Your task to perform on an android device: make emails show in primary in the gmail app Image 0: 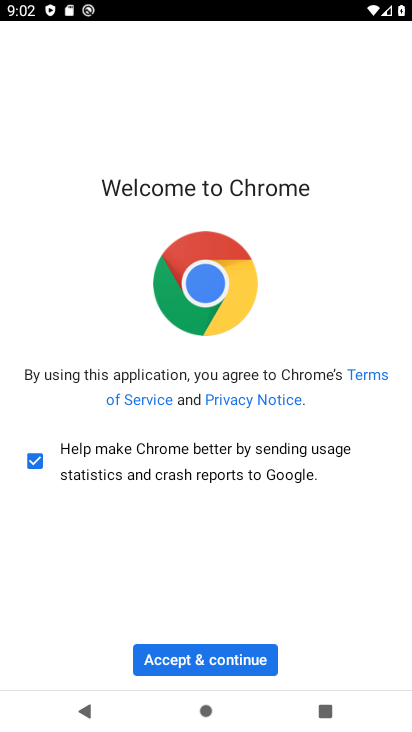
Step 0: press home button
Your task to perform on an android device: make emails show in primary in the gmail app Image 1: 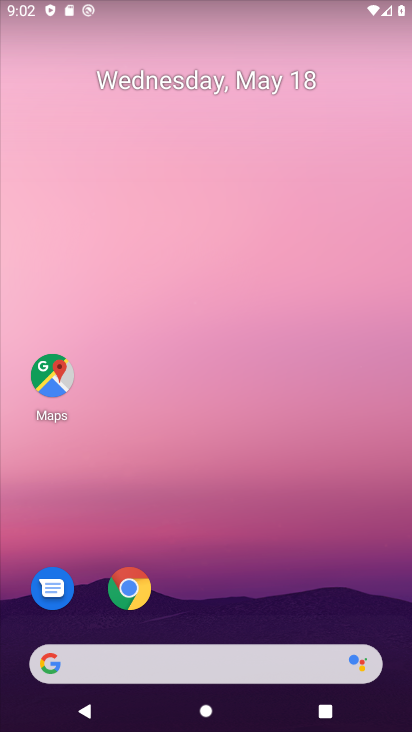
Step 1: drag from (236, 674) to (351, 133)
Your task to perform on an android device: make emails show in primary in the gmail app Image 2: 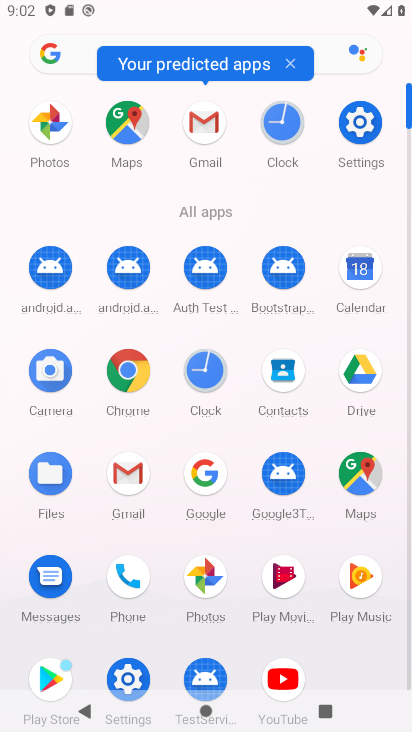
Step 2: click (146, 485)
Your task to perform on an android device: make emails show in primary in the gmail app Image 3: 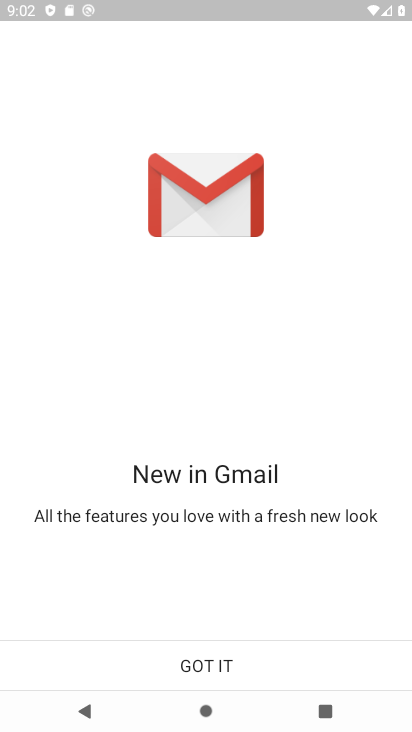
Step 3: click (183, 662)
Your task to perform on an android device: make emails show in primary in the gmail app Image 4: 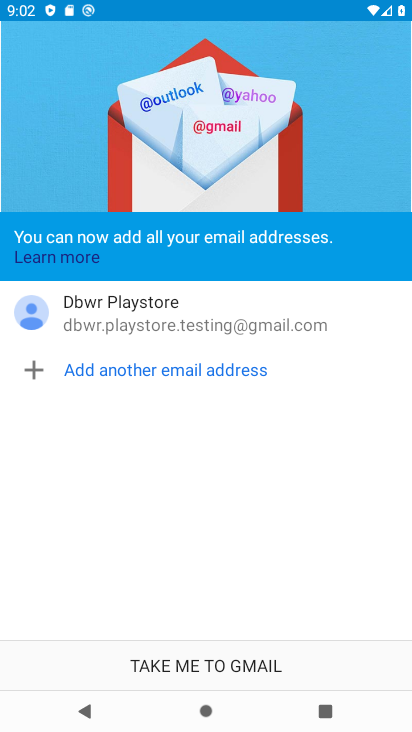
Step 4: click (208, 672)
Your task to perform on an android device: make emails show in primary in the gmail app Image 5: 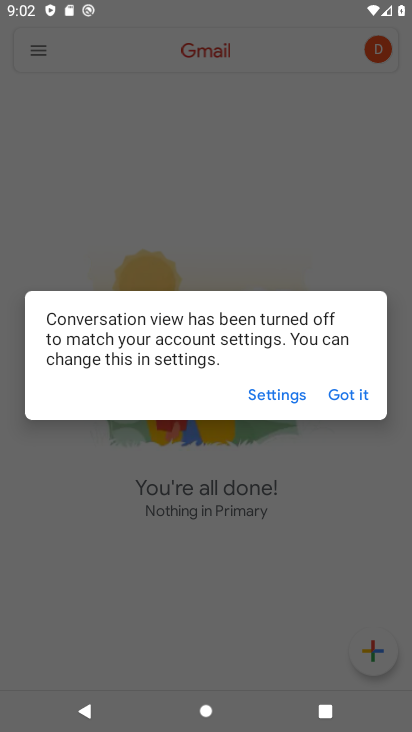
Step 5: click (359, 393)
Your task to perform on an android device: make emails show in primary in the gmail app Image 6: 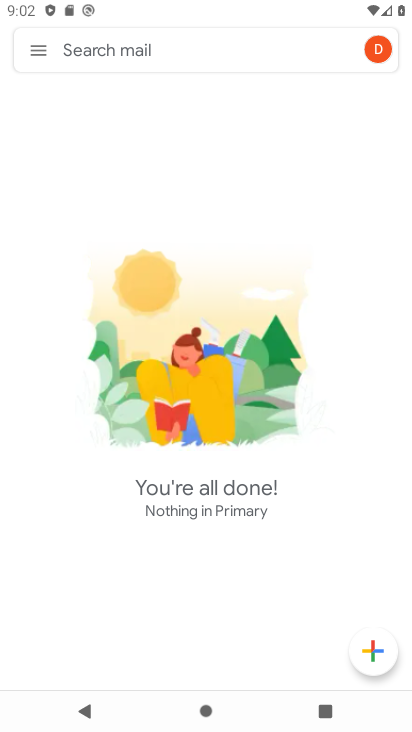
Step 6: click (40, 55)
Your task to perform on an android device: make emails show in primary in the gmail app Image 7: 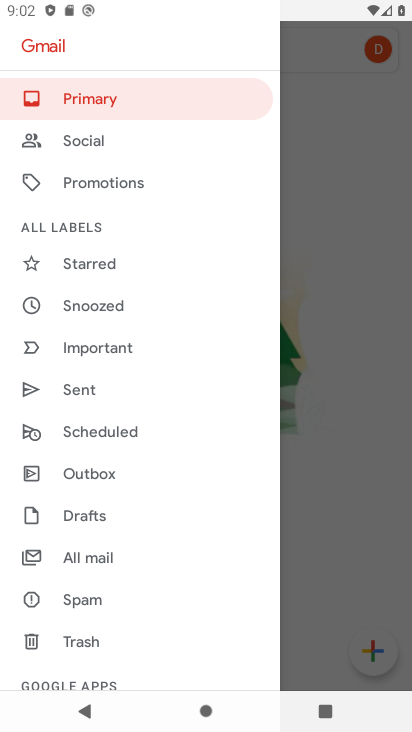
Step 7: drag from (84, 598) to (194, 459)
Your task to perform on an android device: make emails show in primary in the gmail app Image 8: 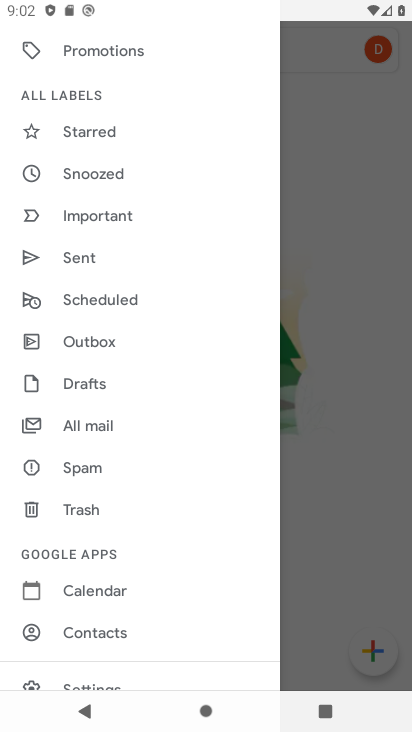
Step 8: click (87, 677)
Your task to perform on an android device: make emails show in primary in the gmail app Image 9: 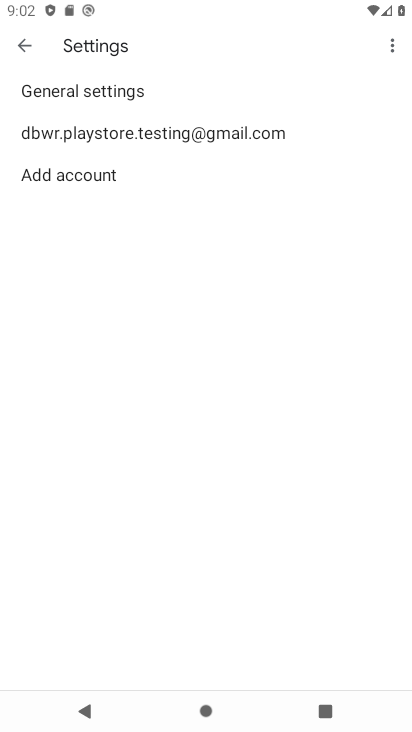
Step 9: click (144, 132)
Your task to perform on an android device: make emails show in primary in the gmail app Image 10: 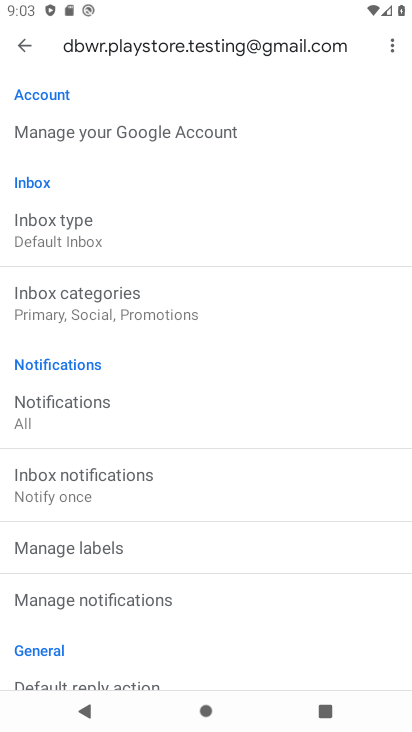
Step 10: click (85, 309)
Your task to perform on an android device: make emails show in primary in the gmail app Image 11: 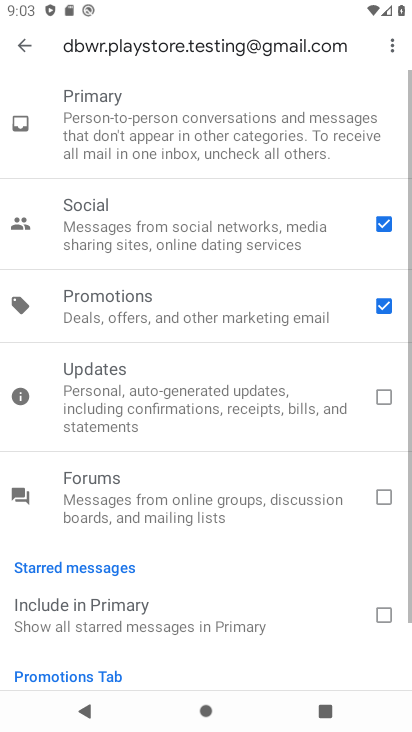
Step 11: click (156, 129)
Your task to perform on an android device: make emails show in primary in the gmail app Image 12: 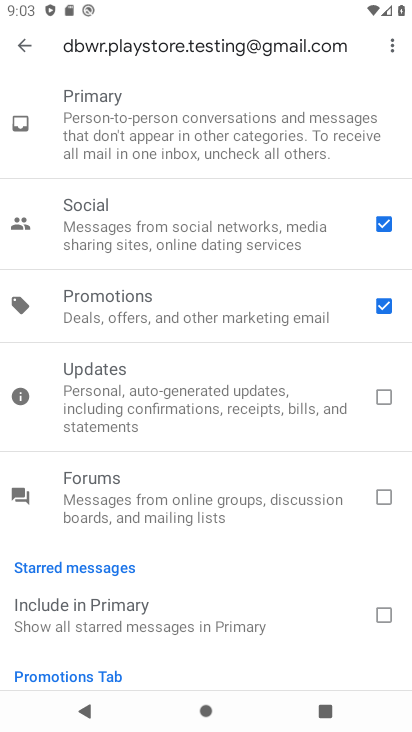
Step 12: task complete